Your task to perform on an android device: Go to sound settings Image 0: 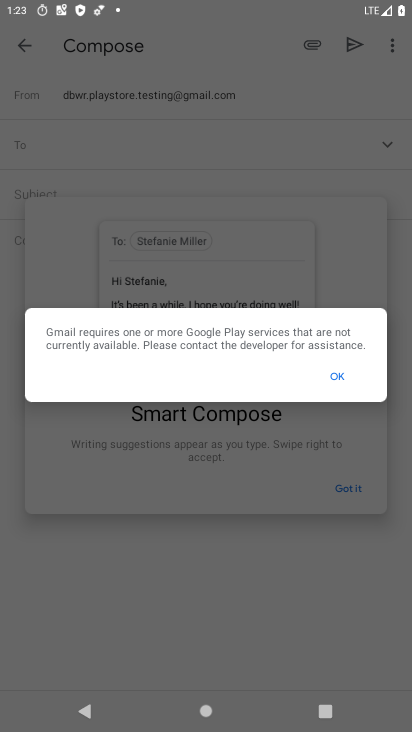
Step 0: press home button
Your task to perform on an android device: Go to sound settings Image 1: 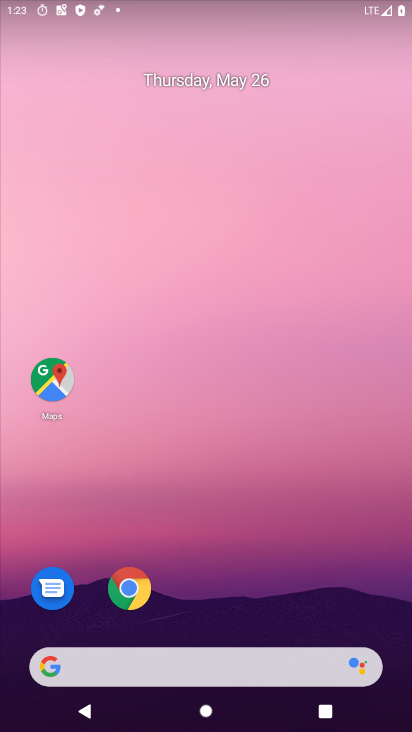
Step 1: drag from (401, 713) to (336, 153)
Your task to perform on an android device: Go to sound settings Image 2: 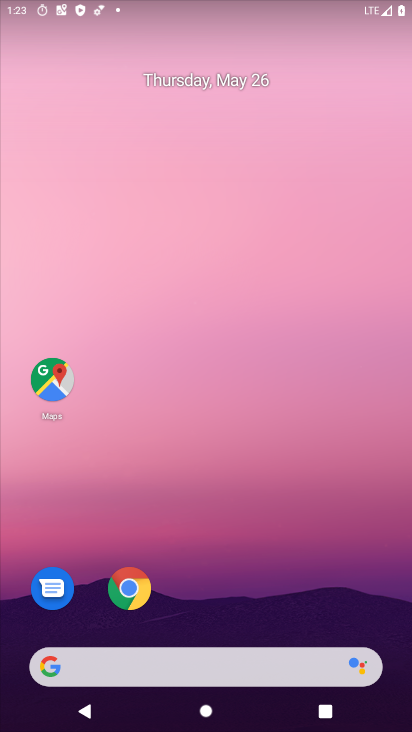
Step 2: drag from (377, 568) to (330, 230)
Your task to perform on an android device: Go to sound settings Image 3: 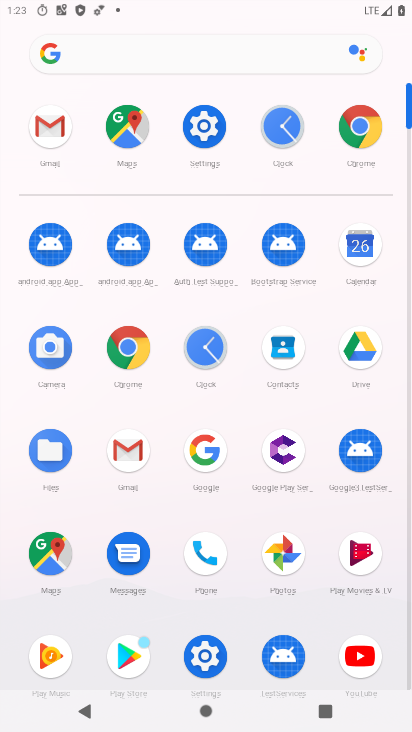
Step 3: click (212, 131)
Your task to perform on an android device: Go to sound settings Image 4: 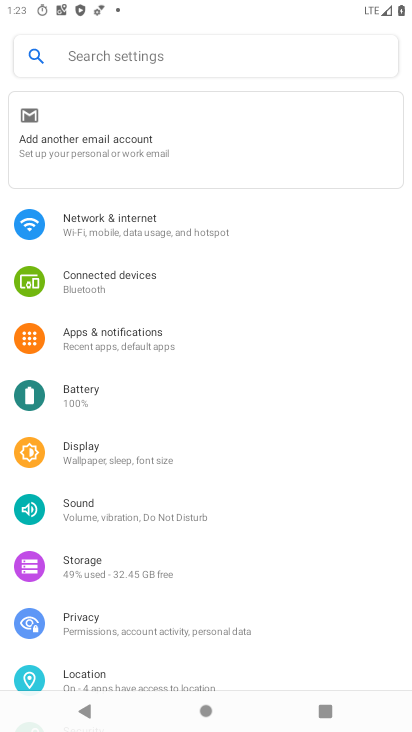
Step 4: click (84, 507)
Your task to perform on an android device: Go to sound settings Image 5: 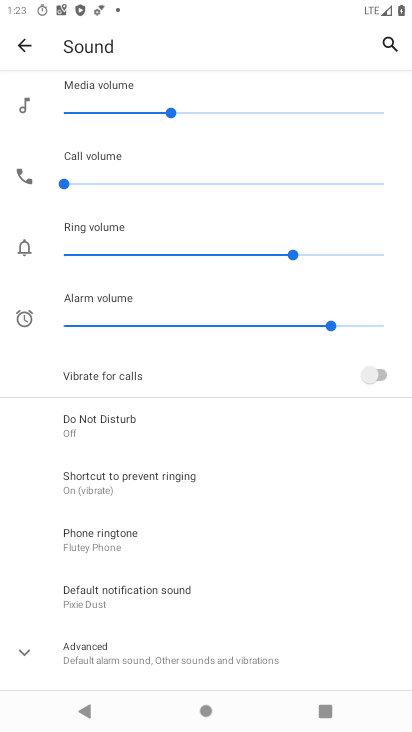
Step 5: task complete